Your task to perform on an android device: Open Google Maps Image 0: 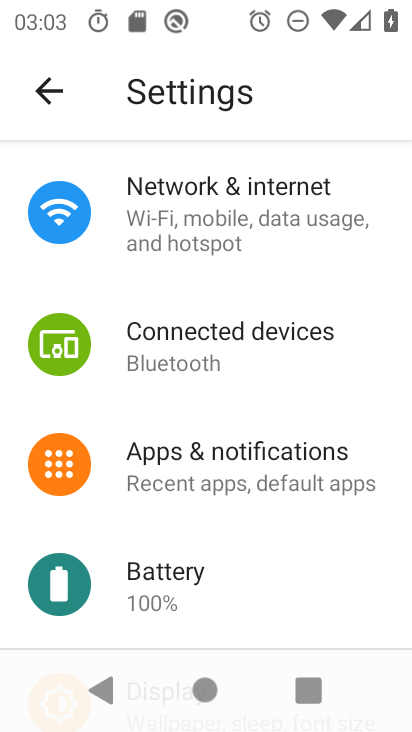
Step 0: press home button
Your task to perform on an android device: Open Google Maps Image 1: 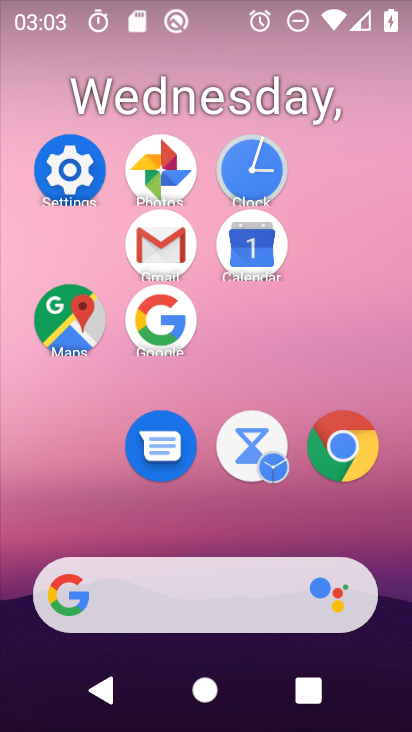
Step 1: click (75, 306)
Your task to perform on an android device: Open Google Maps Image 2: 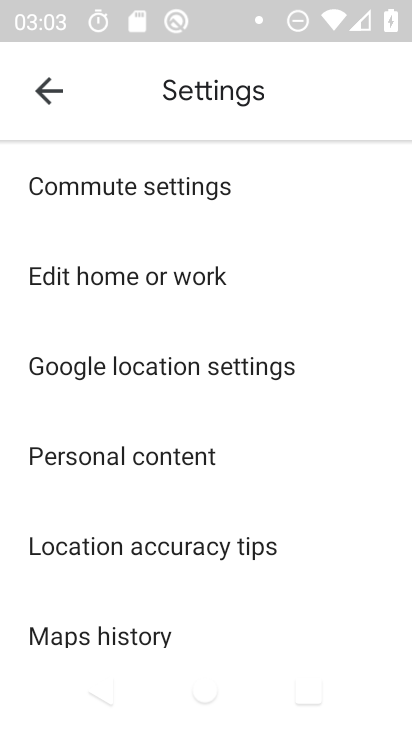
Step 2: task complete